Your task to perform on an android device: Go to eBay Image 0: 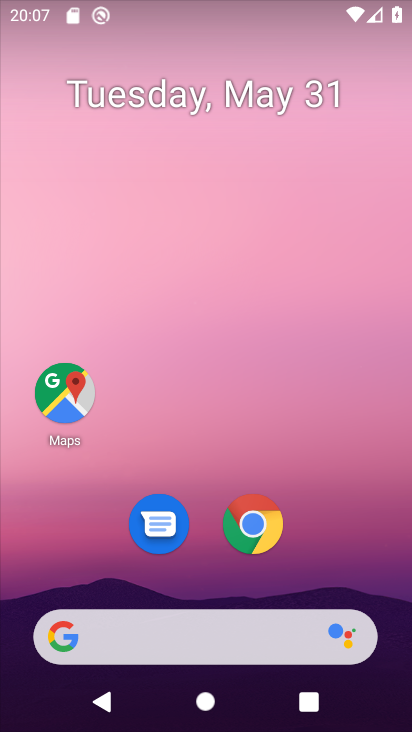
Step 0: click (279, 650)
Your task to perform on an android device: Go to eBay Image 1: 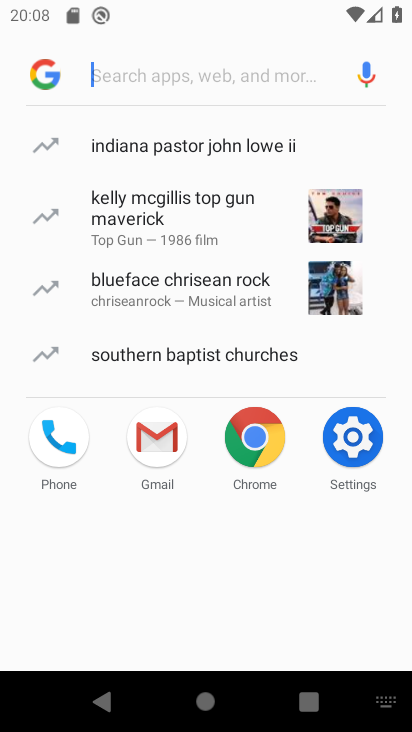
Step 1: type "ebay"
Your task to perform on an android device: Go to eBay Image 2: 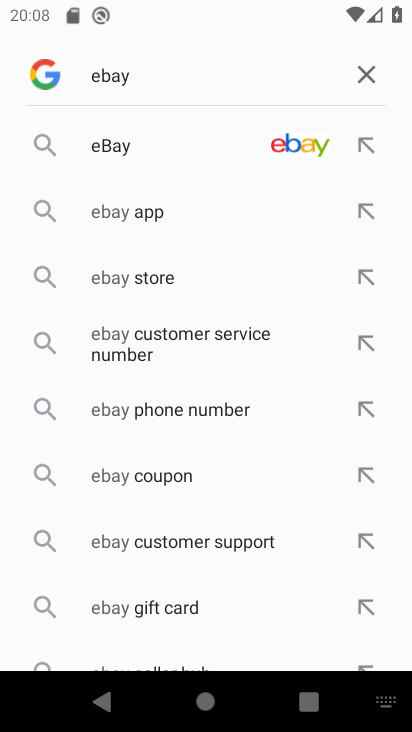
Step 2: click (117, 140)
Your task to perform on an android device: Go to eBay Image 3: 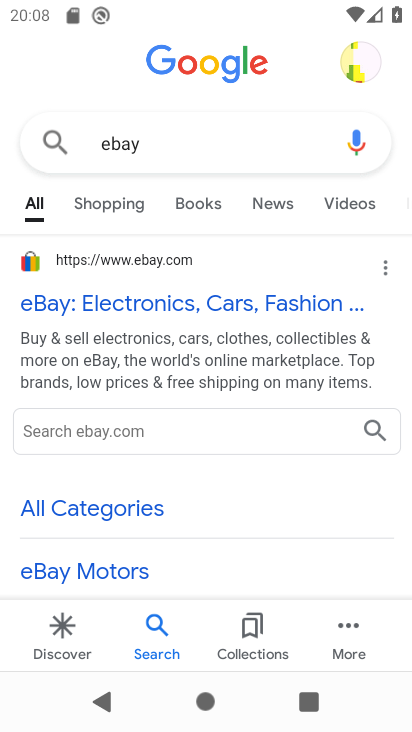
Step 3: click (41, 303)
Your task to perform on an android device: Go to eBay Image 4: 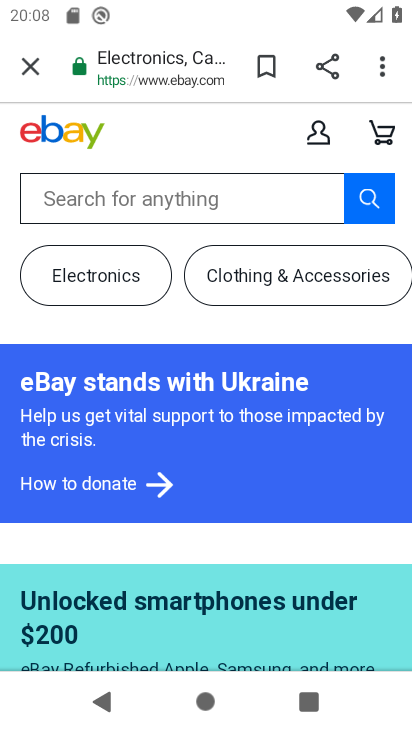
Step 4: task complete